Your task to perform on an android device: What's the weather today? Image 0: 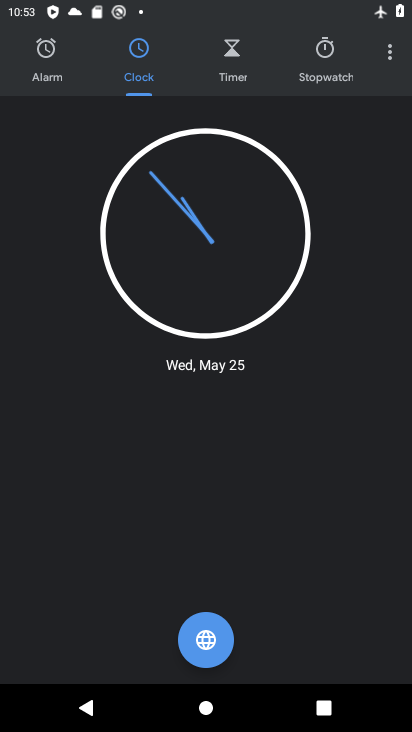
Step 0: press home button
Your task to perform on an android device: What's the weather today? Image 1: 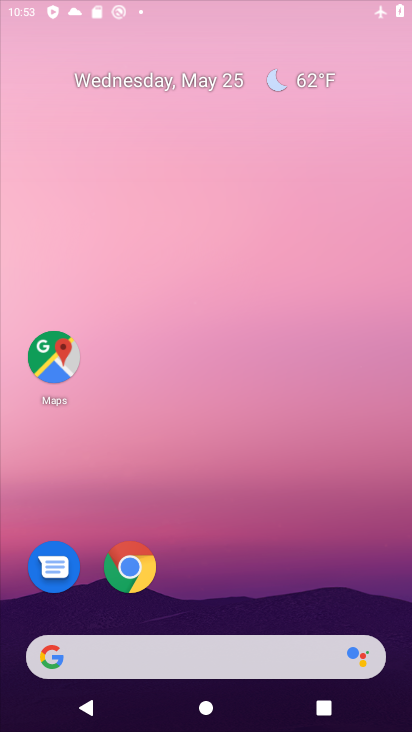
Step 1: drag from (334, 604) to (338, 43)
Your task to perform on an android device: What's the weather today? Image 2: 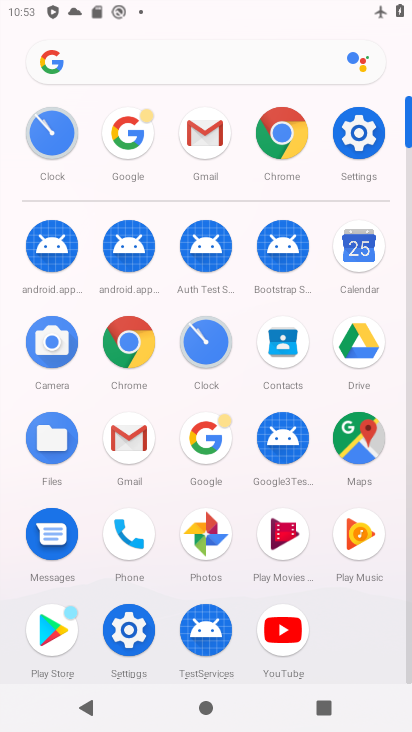
Step 2: click (198, 439)
Your task to perform on an android device: What's the weather today? Image 3: 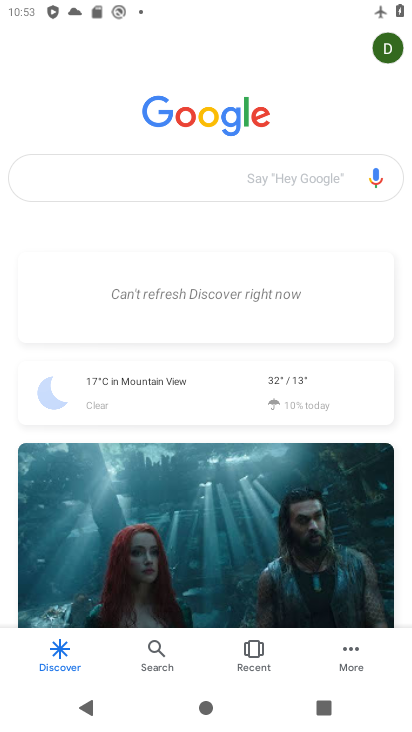
Step 3: click (185, 182)
Your task to perform on an android device: What's the weather today? Image 4: 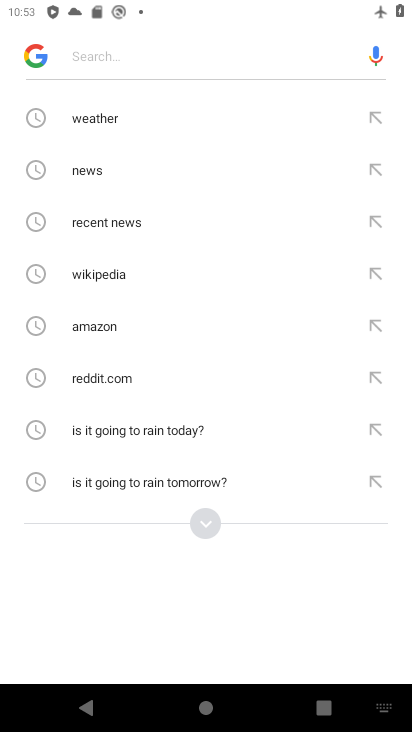
Step 4: click (208, 518)
Your task to perform on an android device: What's the weather today? Image 5: 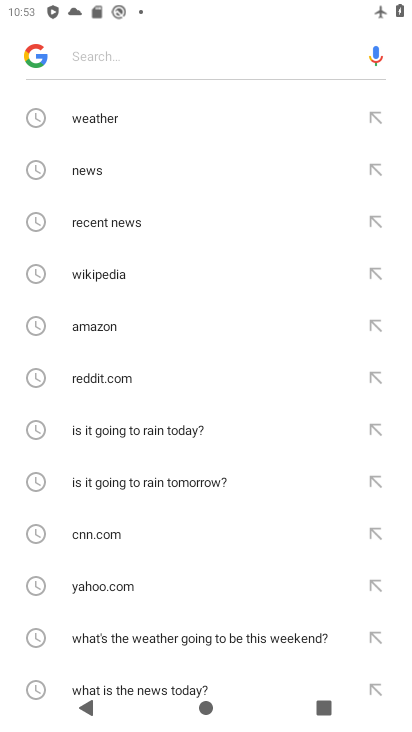
Step 5: drag from (150, 645) to (210, 225)
Your task to perform on an android device: What's the weather today? Image 6: 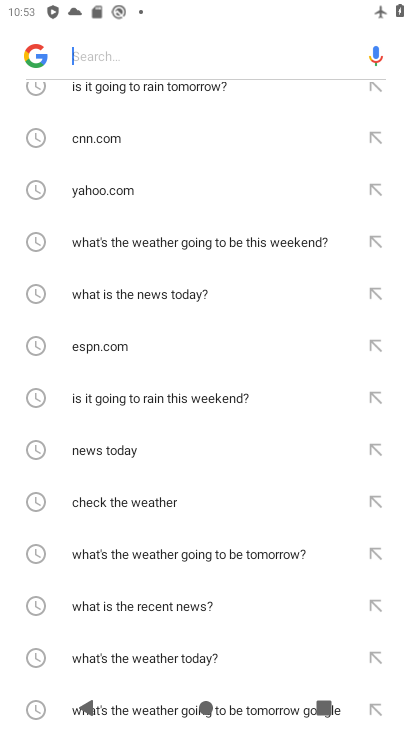
Step 6: click (203, 655)
Your task to perform on an android device: What's the weather today? Image 7: 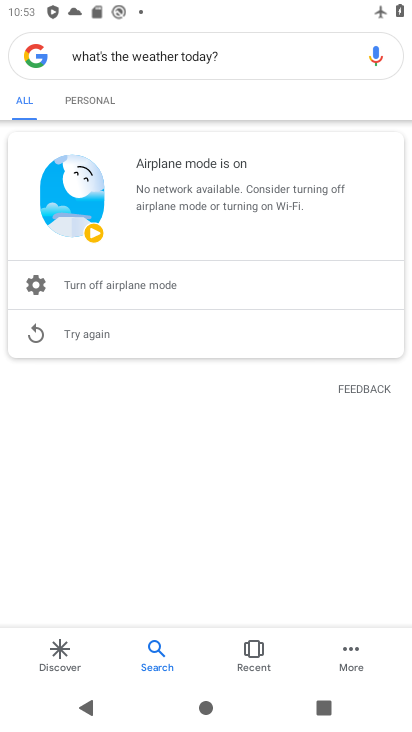
Step 7: task complete